Your task to perform on an android device: Search for "usb-a" on bestbuy, select the first entry, and add it to the cart. Image 0: 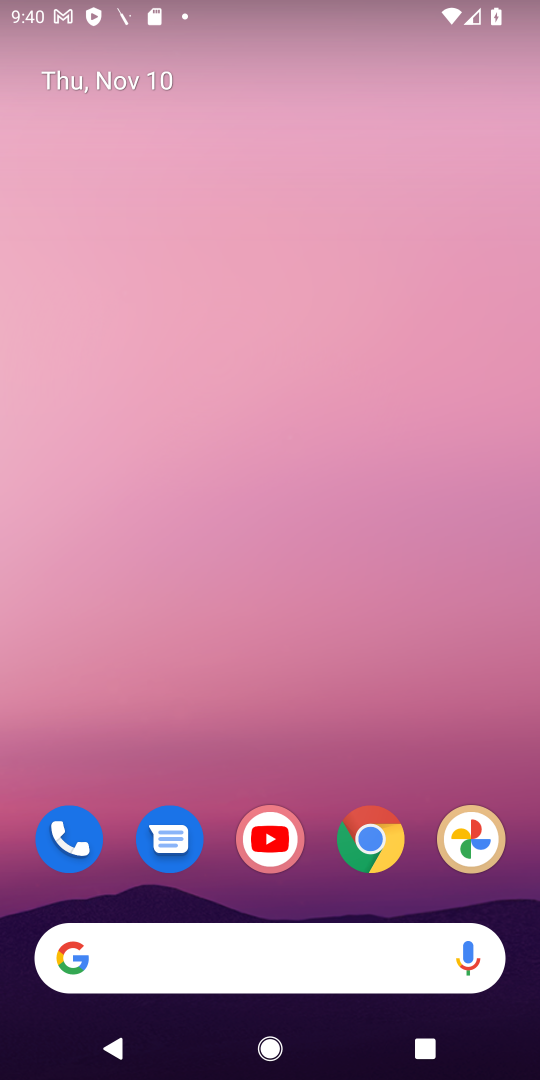
Step 0: click (371, 855)
Your task to perform on an android device: Search for "usb-a" on bestbuy, select the first entry, and add it to the cart. Image 1: 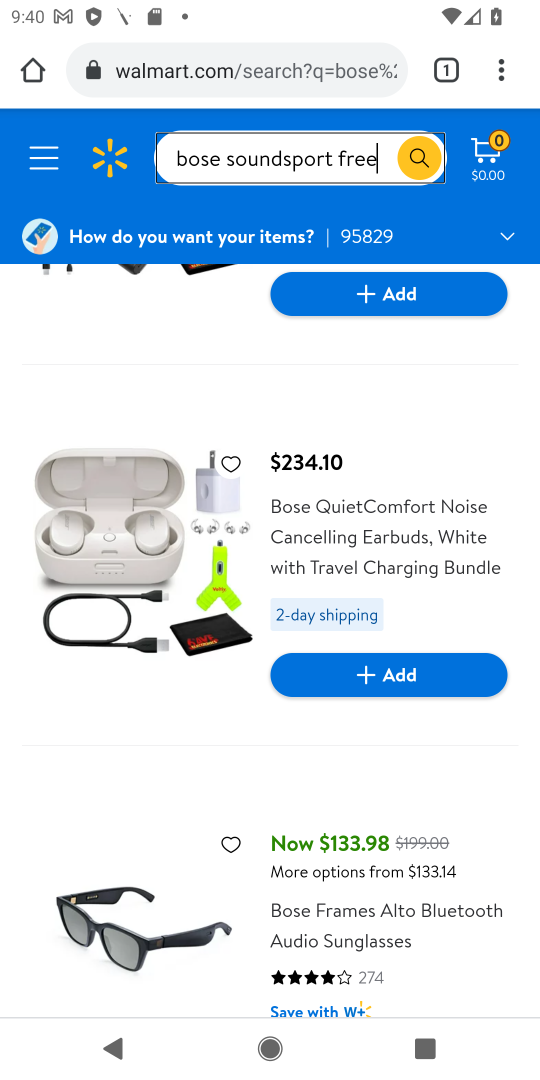
Step 1: click (290, 79)
Your task to perform on an android device: Search for "usb-a" on bestbuy, select the first entry, and add it to the cart. Image 2: 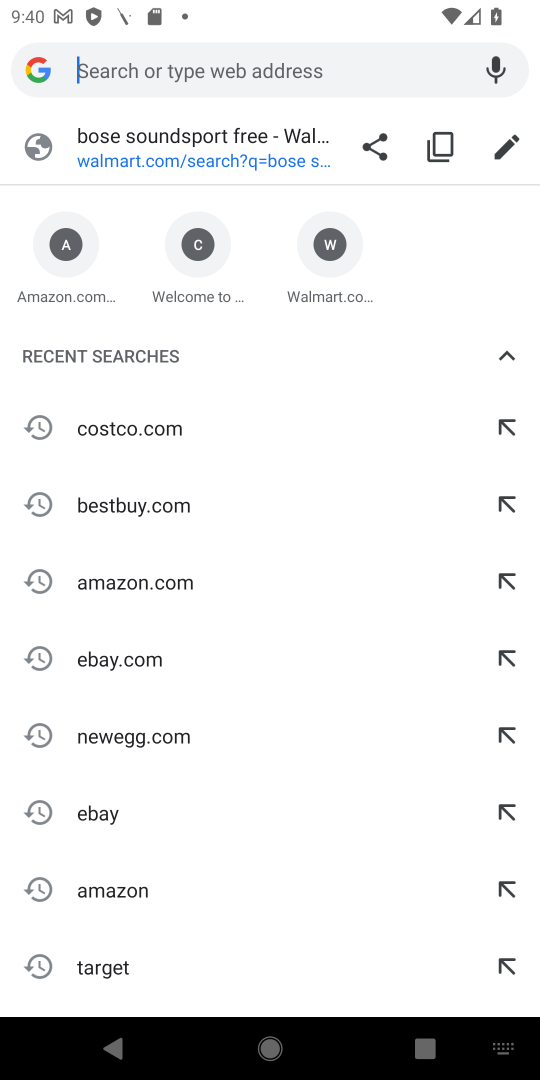
Step 2: click (143, 512)
Your task to perform on an android device: Search for "usb-a" on bestbuy, select the first entry, and add it to the cart. Image 3: 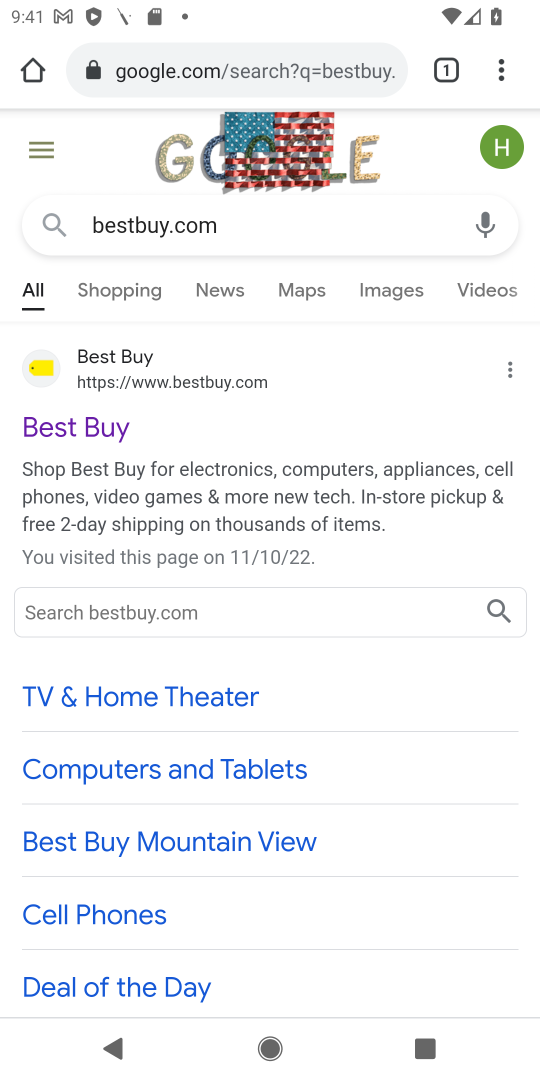
Step 3: click (193, 380)
Your task to perform on an android device: Search for "usb-a" on bestbuy, select the first entry, and add it to the cart. Image 4: 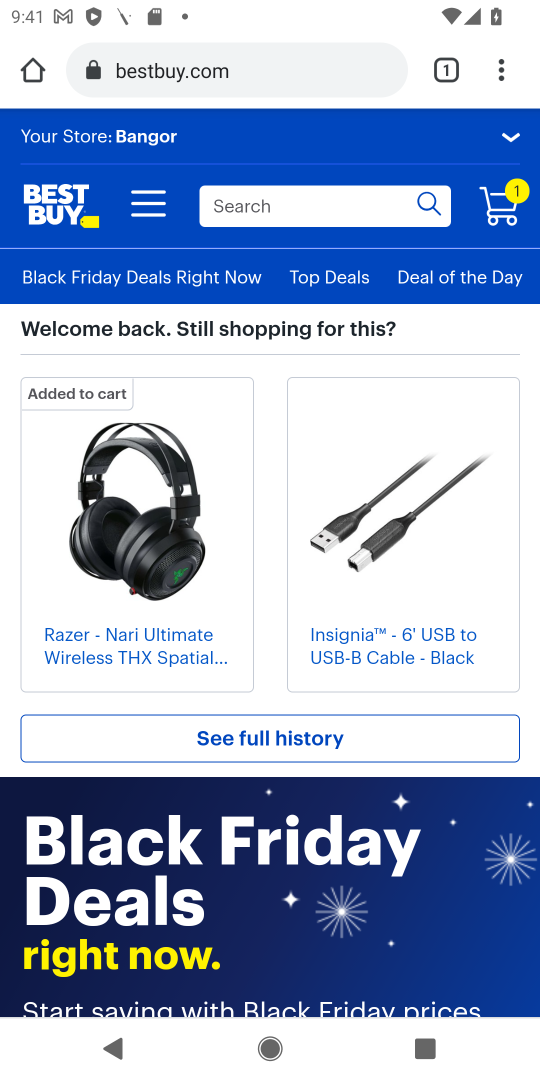
Step 4: click (348, 208)
Your task to perform on an android device: Search for "usb-a" on bestbuy, select the first entry, and add it to the cart. Image 5: 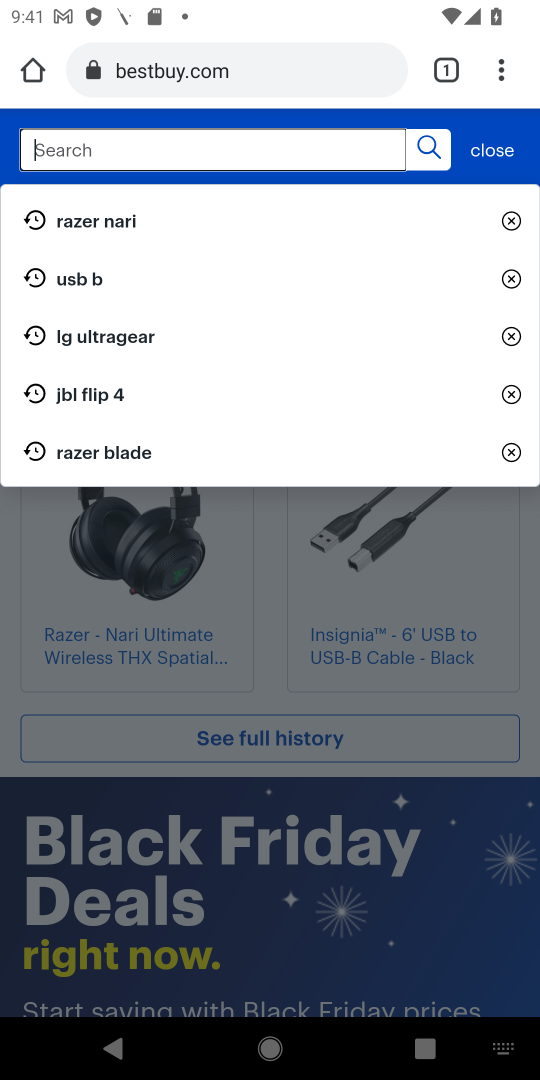
Step 5: type "usb-a"
Your task to perform on an android device: Search for "usb-a" on bestbuy, select the first entry, and add it to the cart. Image 6: 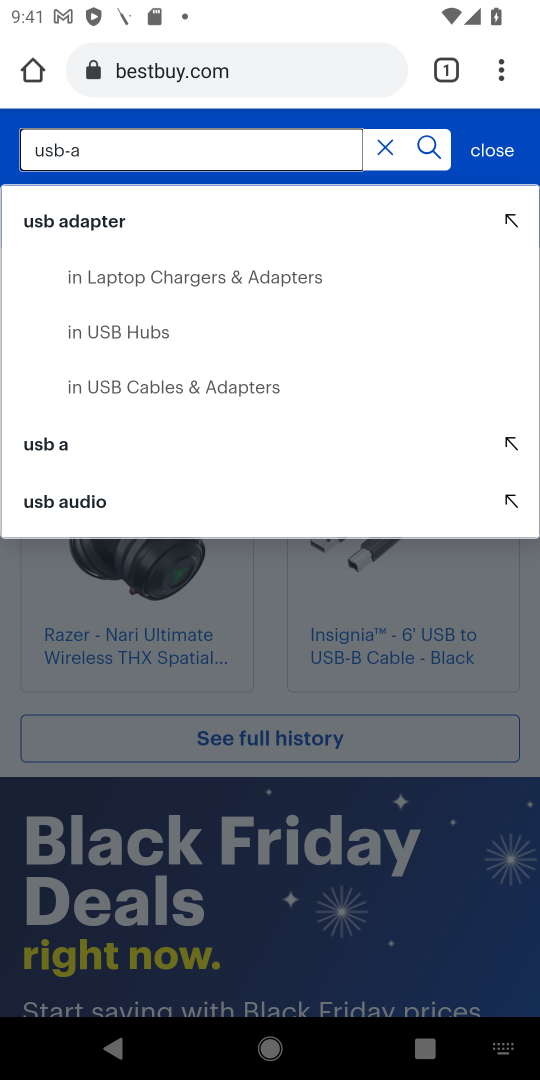
Step 6: click (57, 440)
Your task to perform on an android device: Search for "usb-a" on bestbuy, select the first entry, and add it to the cart. Image 7: 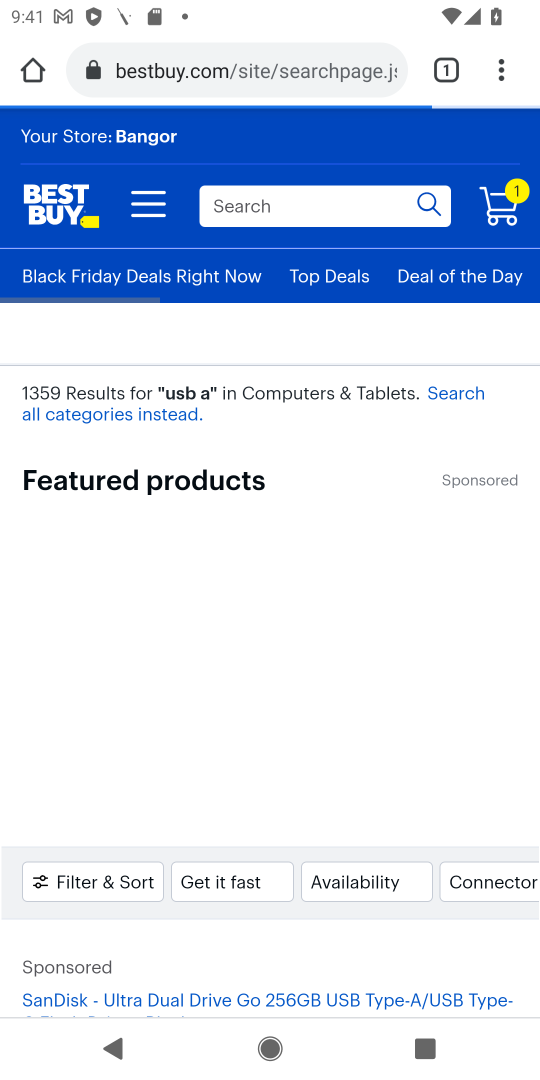
Step 7: click (320, 141)
Your task to perform on an android device: Search for "usb-a" on bestbuy, select the first entry, and add it to the cart. Image 8: 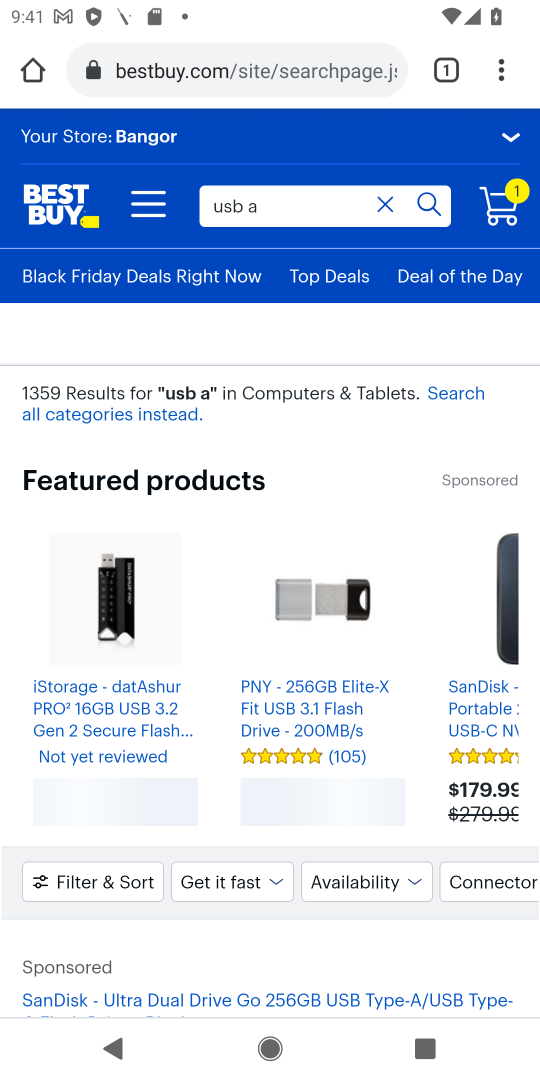
Step 8: drag from (206, 666) to (215, 542)
Your task to perform on an android device: Search for "usb-a" on bestbuy, select the first entry, and add it to the cart. Image 9: 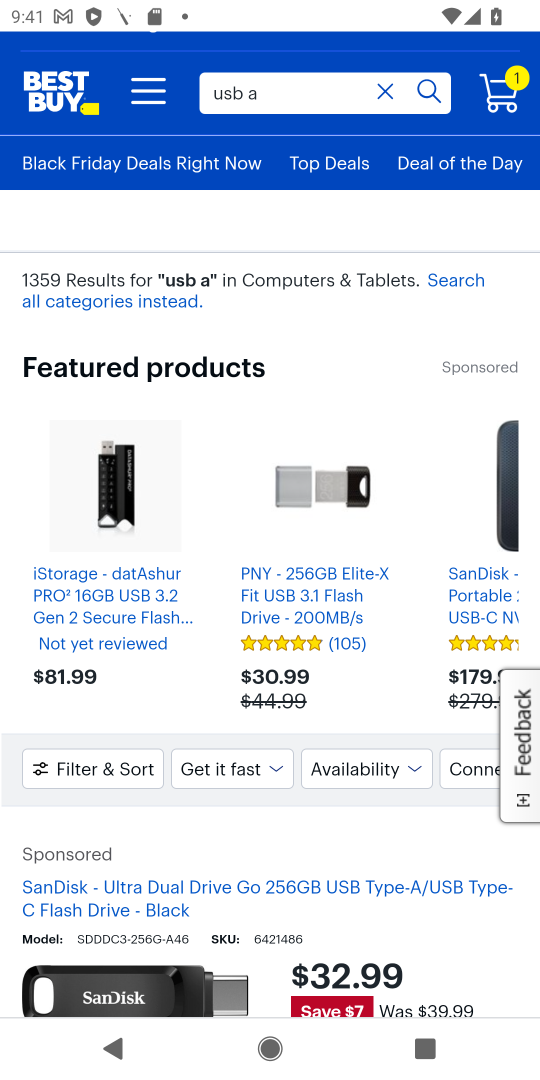
Step 9: drag from (448, 940) to (354, 581)
Your task to perform on an android device: Search for "usb-a" on bestbuy, select the first entry, and add it to the cart. Image 10: 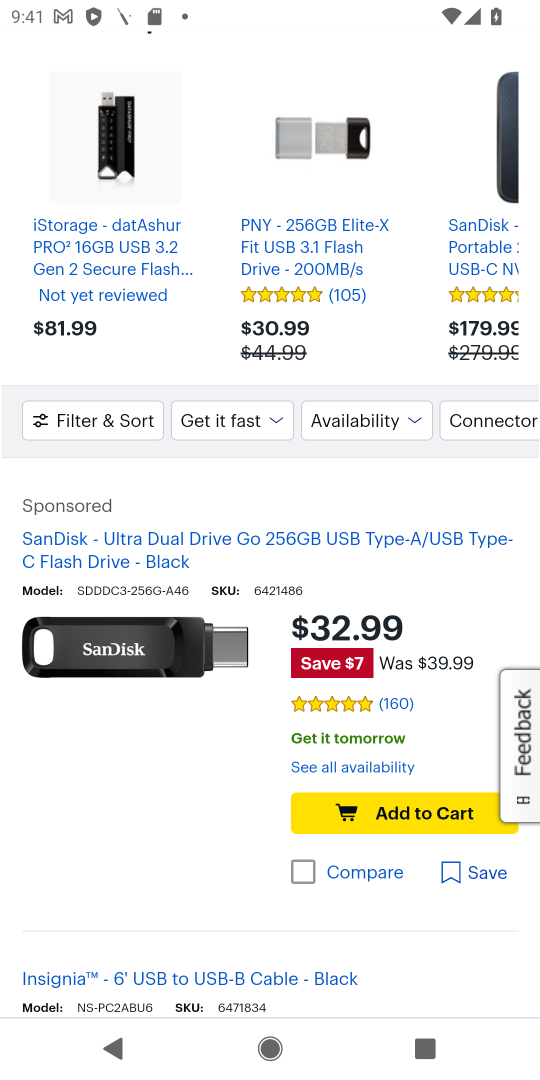
Step 10: drag from (428, 889) to (389, 712)
Your task to perform on an android device: Search for "usb-a" on bestbuy, select the first entry, and add it to the cart. Image 11: 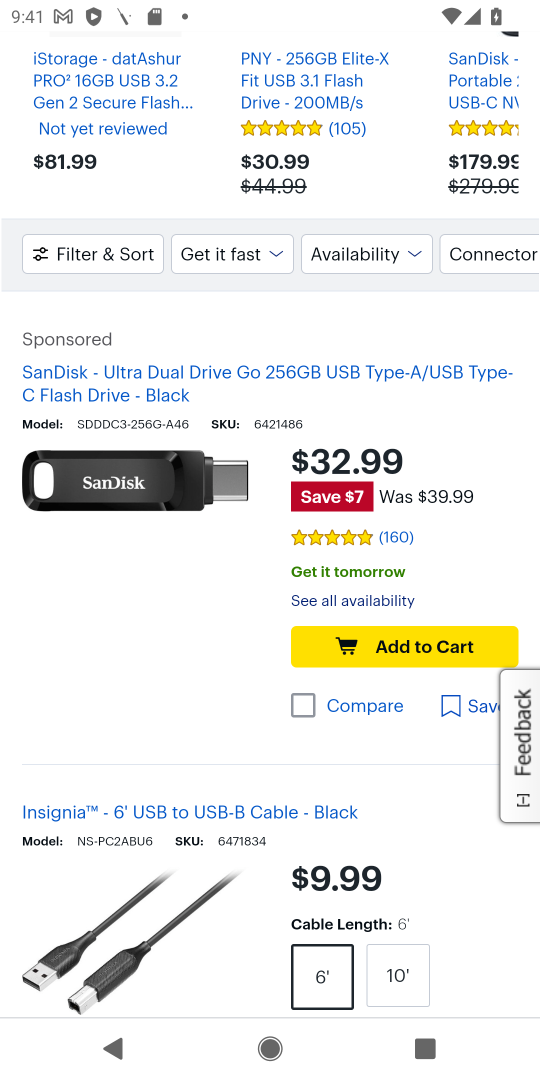
Step 11: drag from (429, 839) to (397, 522)
Your task to perform on an android device: Search for "usb-a" on bestbuy, select the first entry, and add it to the cart. Image 12: 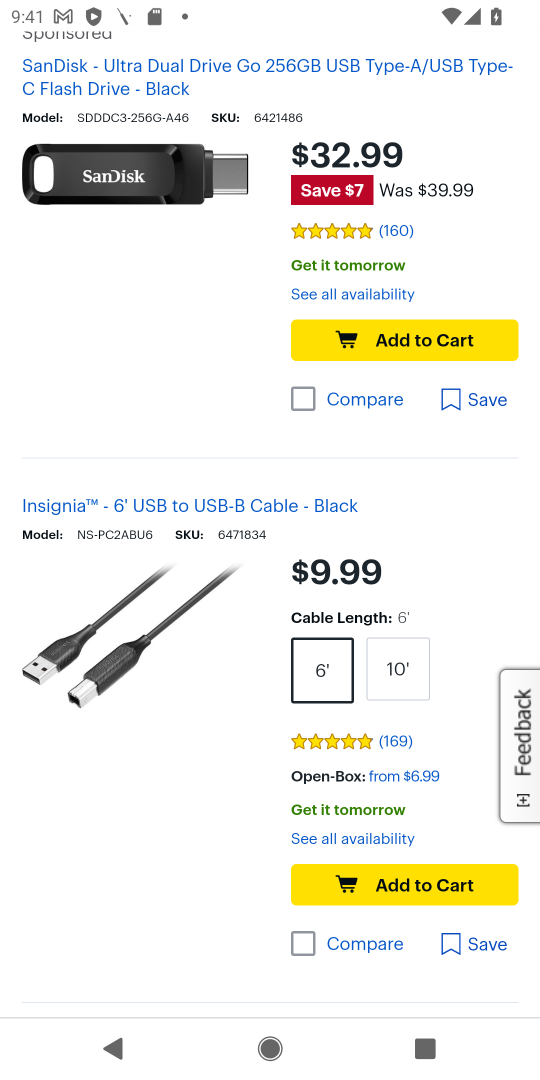
Step 12: drag from (238, 889) to (234, 483)
Your task to perform on an android device: Search for "usb-a" on bestbuy, select the first entry, and add it to the cart. Image 13: 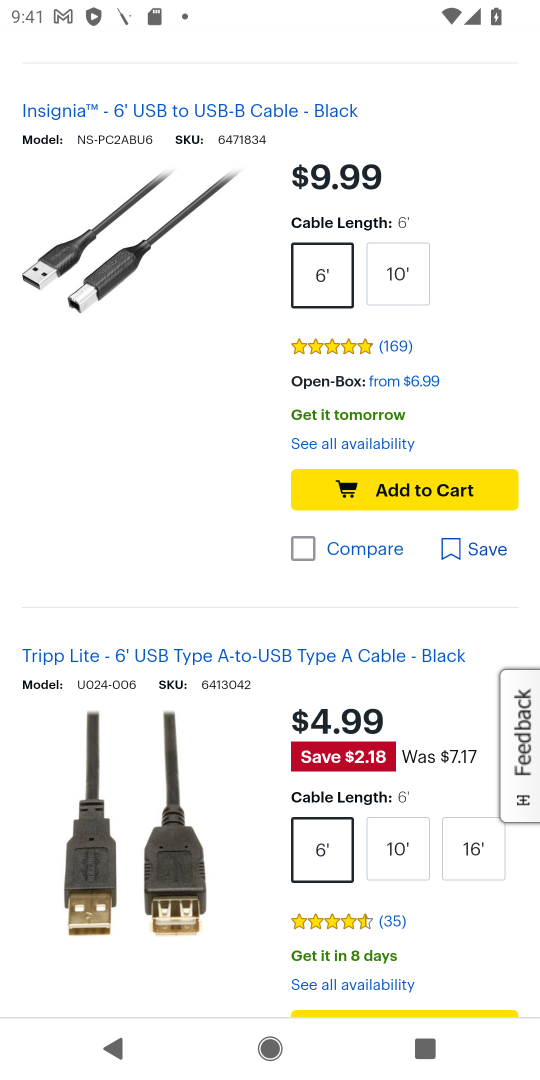
Step 13: drag from (198, 846) to (292, 493)
Your task to perform on an android device: Search for "usb-a" on bestbuy, select the first entry, and add it to the cart. Image 14: 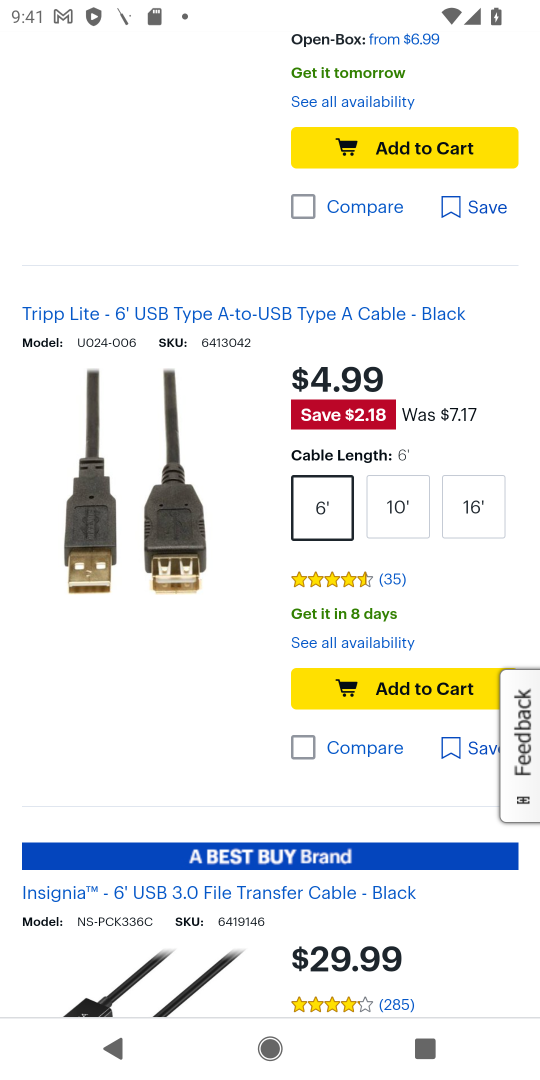
Step 14: click (124, 538)
Your task to perform on an android device: Search for "usb-a" on bestbuy, select the first entry, and add it to the cart. Image 15: 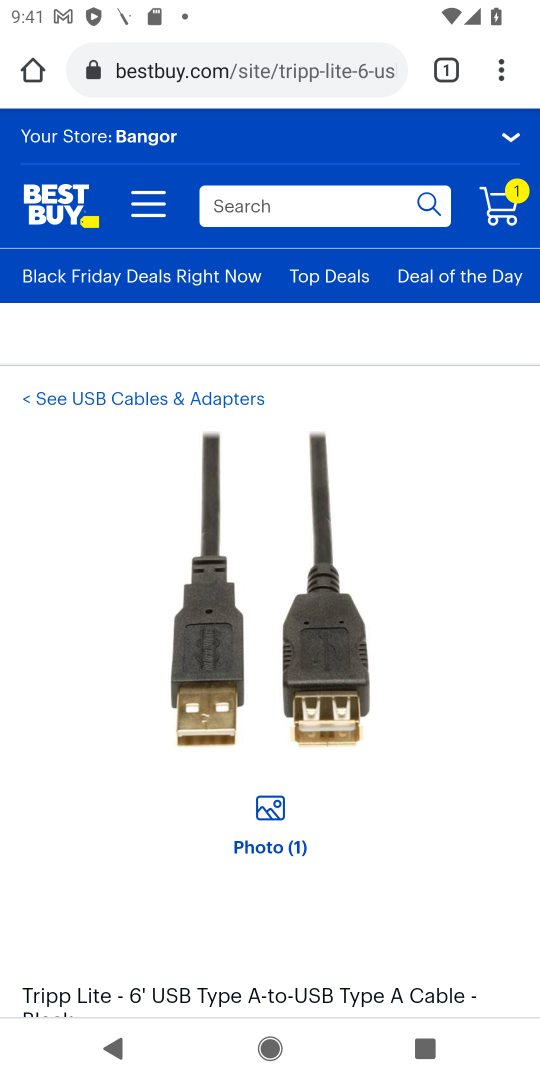
Step 15: drag from (440, 624) to (478, 136)
Your task to perform on an android device: Search for "usb-a" on bestbuy, select the first entry, and add it to the cart. Image 16: 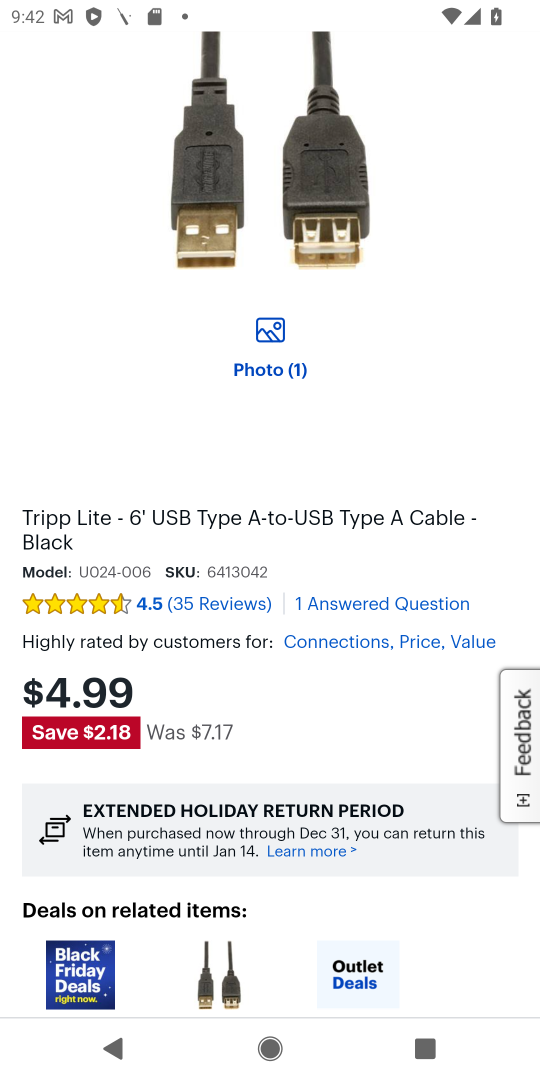
Step 16: drag from (416, 689) to (388, 302)
Your task to perform on an android device: Search for "usb-a" on bestbuy, select the first entry, and add it to the cart. Image 17: 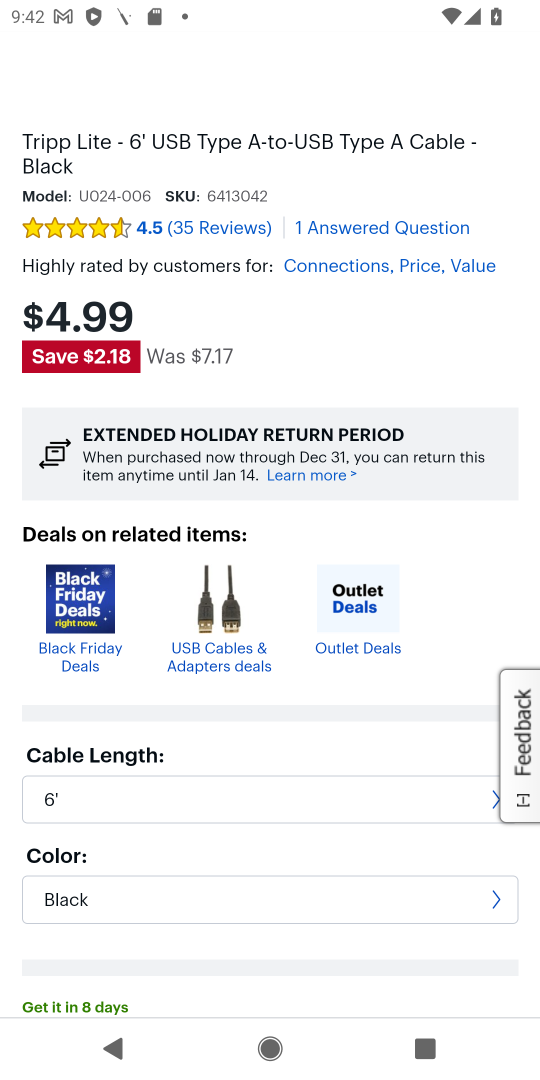
Step 17: drag from (383, 726) to (455, 257)
Your task to perform on an android device: Search for "usb-a" on bestbuy, select the first entry, and add it to the cart. Image 18: 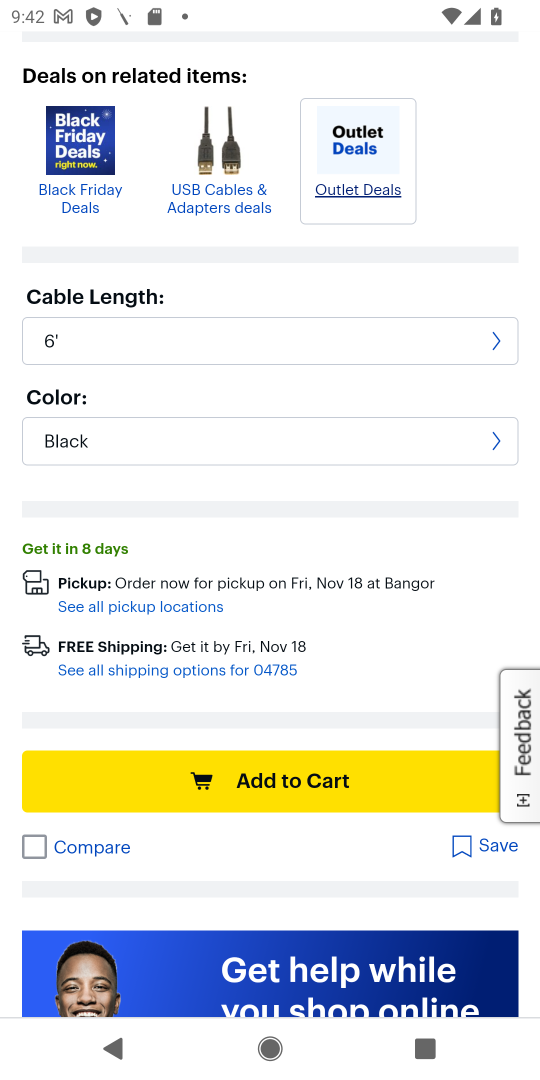
Step 18: click (296, 770)
Your task to perform on an android device: Search for "usb-a" on bestbuy, select the first entry, and add it to the cart. Image 19: 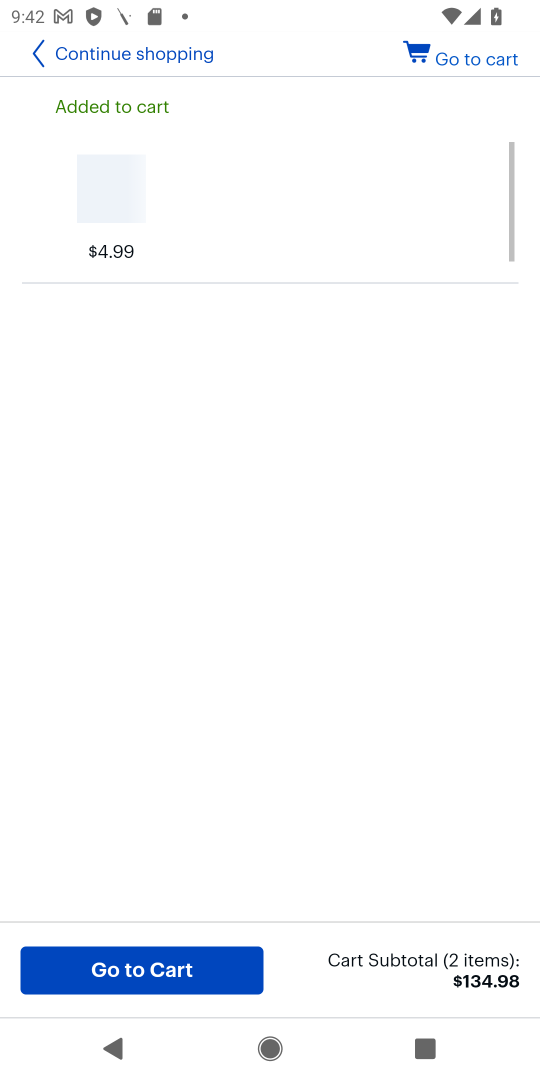
Step 19: task complete